Your task to perform on an android device: turn off wifi Image 0: 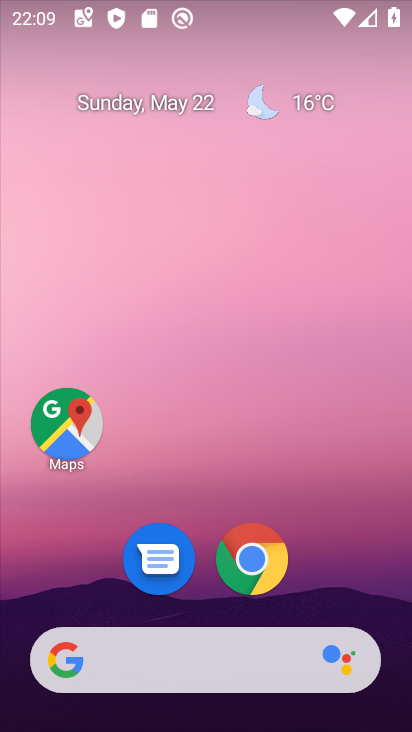
Step 0: press home button
Your task to perform on an android device: turn off wifi Image 1: 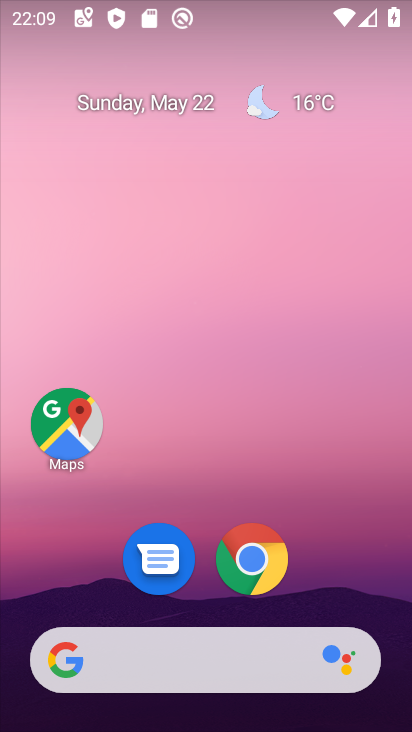
Step 1: drag from (318, 524) to (340, 294)
Your task to perform on an android device: turn off wifi Image 2: 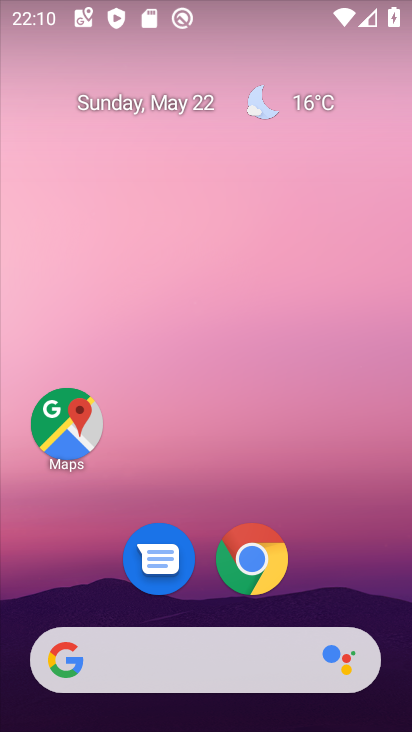
Step 2: drag from (225, 677) to (222, 245)
Your task to perform on an android device: turn off wifi Image 3: 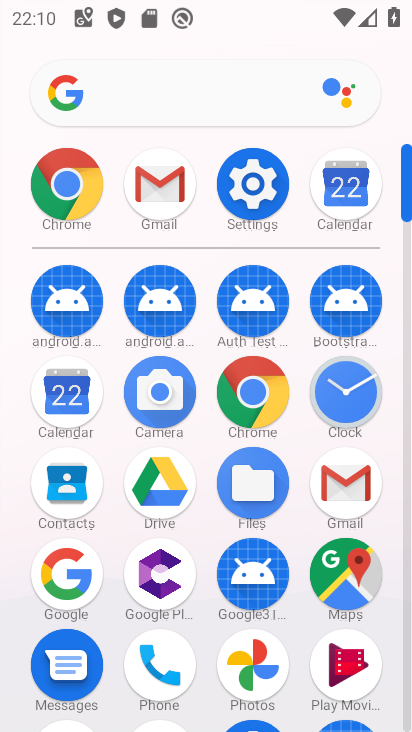
Step 3: click (260, 203)
Your task to perform on an android device: turn off wifi Image 4: 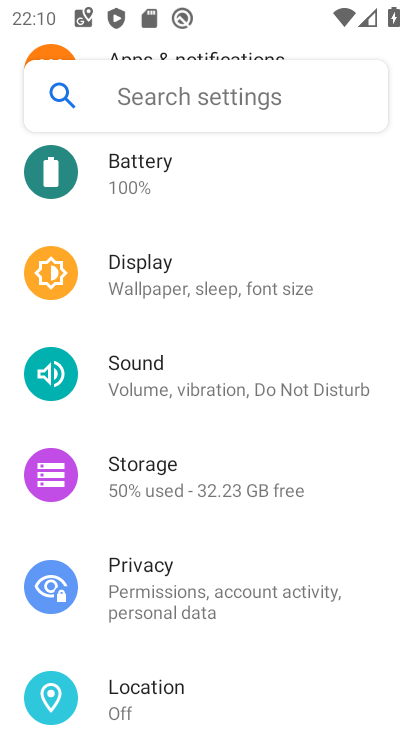
Step 4: drag from (187, 171) to (248, 353)
Your task to perform on an android device: turn off wifi Image 5: 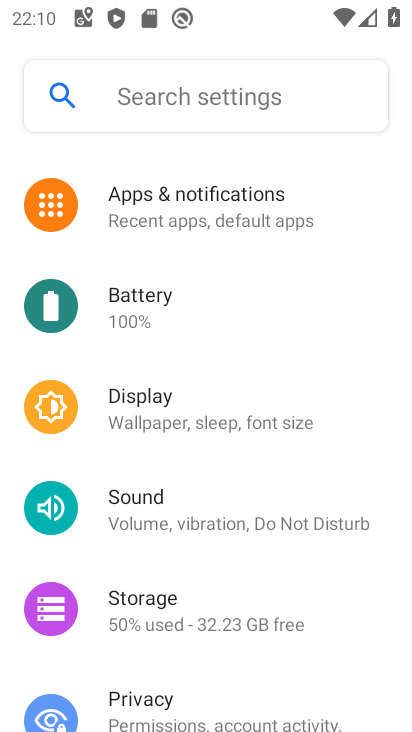
Step 5: drag from (208, 234) to (264, 427)
Your task to perform on an android device: turn off wifi Image 6: 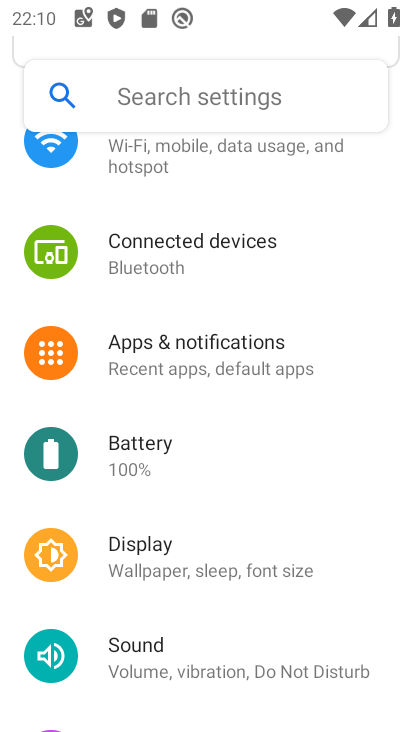
Step 6: click (220, 174)
Your task to perform on an android device: turn off wifi Image 7: 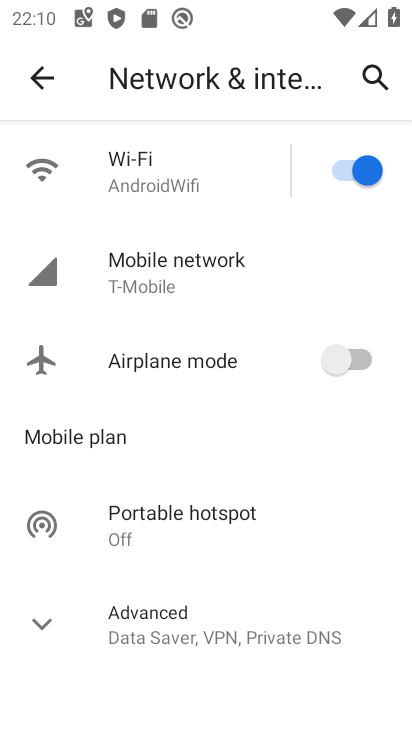
Step 7: click (367, 180)
Your task to perform on an android device: turn off wifi Image 8: 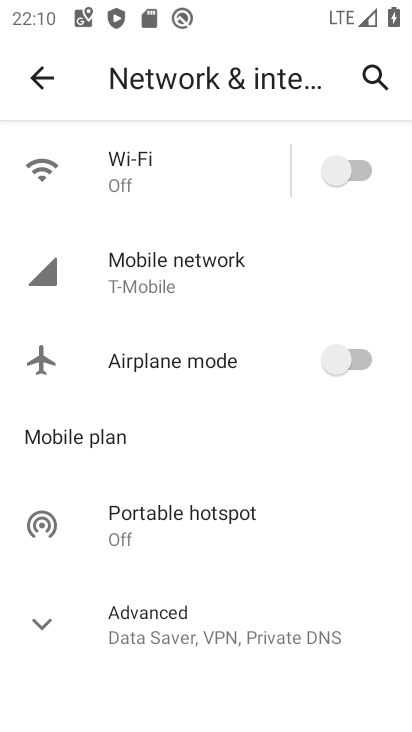
Step 8: task complete